Your task to perform on an android device: Go to Yahoo.com Image 0: 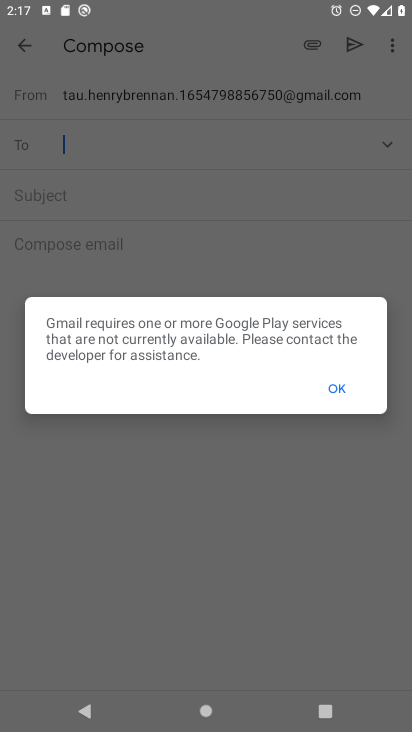
Step 0: press home button
Your task to perform on an android device: Go to Yahoo.com Image 1: 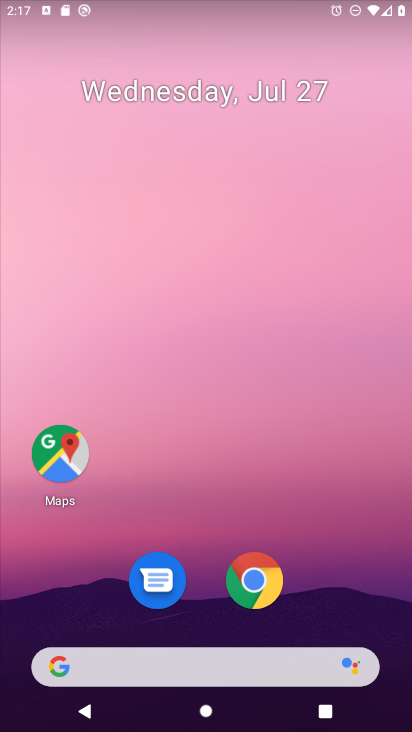
Step 1: click (269, 572)
Your task to perform on an android device: Go to Yahoo.com Image 2: 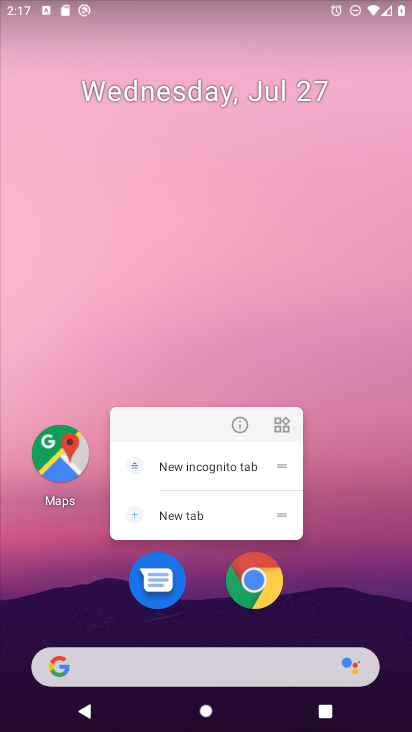
Step 2: click (251, 596)
Your task to perform on an android device: Go to Yahoo.com Image 3: 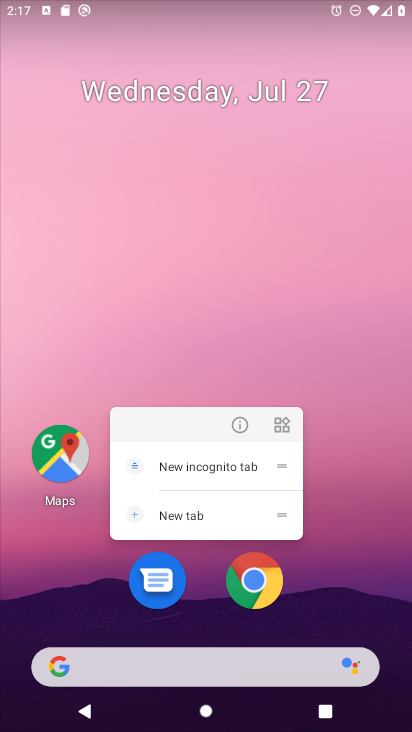
Step 3: click (251, 596)
Your task to perform on an android device: Go to Yahoo.com Image 4: 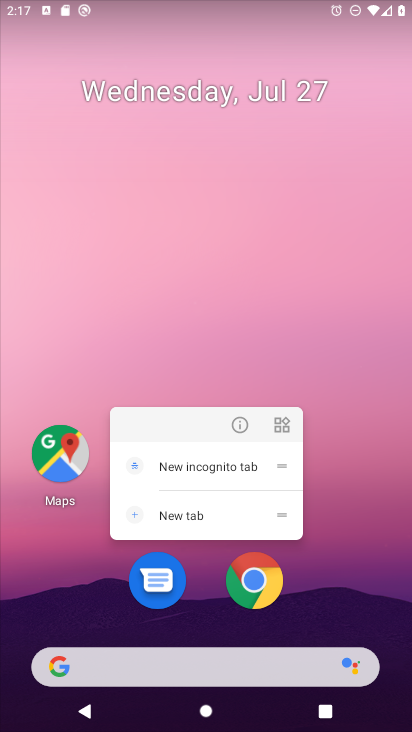
Step 4: click (252, 581)
Your task to perform on an android device: Go to Yahoo.com Image 5: 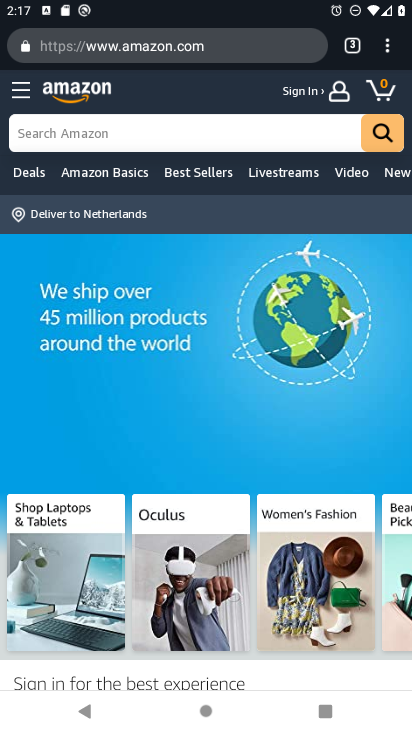
Step 5: click (354, 45)
Your task to perform on an android device: Go to Yahoo.com Image 6: 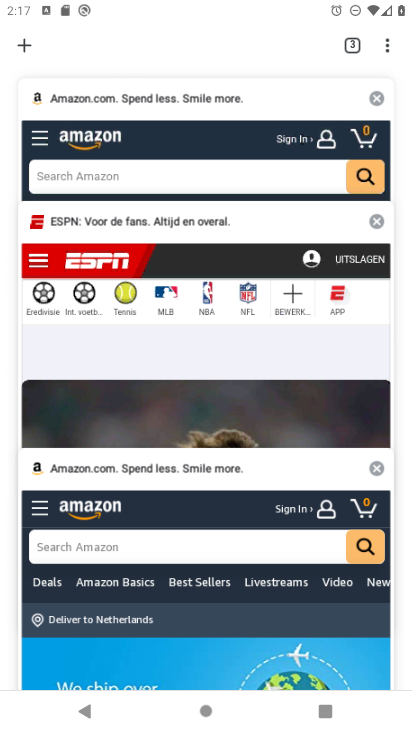
Step 6: click (11, 34)
Your task to perform on an android device: Go to Yahoo.com Image 7: 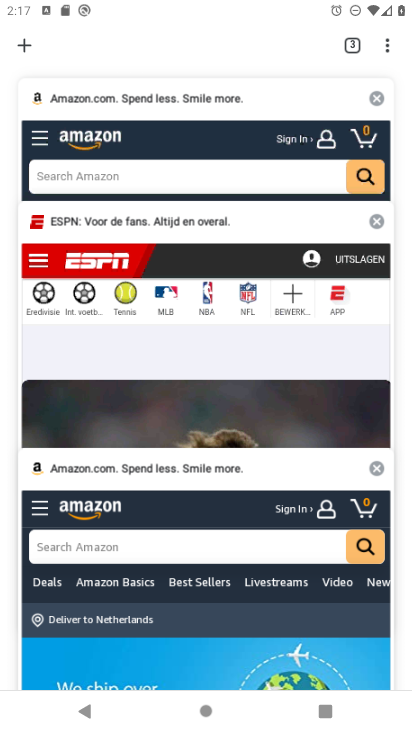
Step 7: click (34, 46)
Your task to perform on an android device: Go to Yahoo.com Image 8: 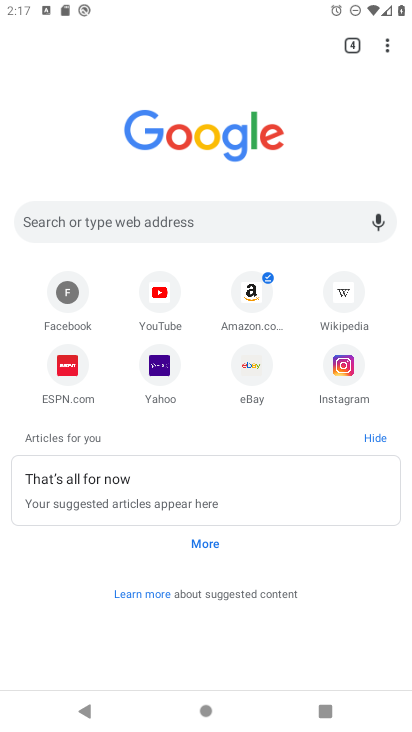
Step 8: click (142, 385)
Your task to perform on an android device: Go to Yahoo.com Image 9: 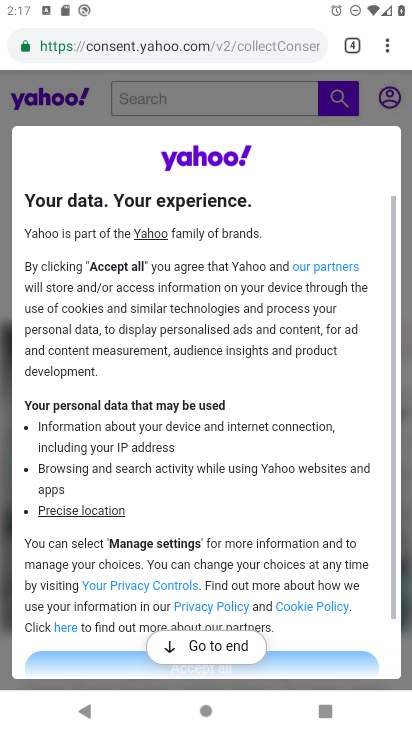
Step 9: drag from (226, 562) to (233, 272)
Your task to perform on an android device: Go to Yahoo.com Image 10: 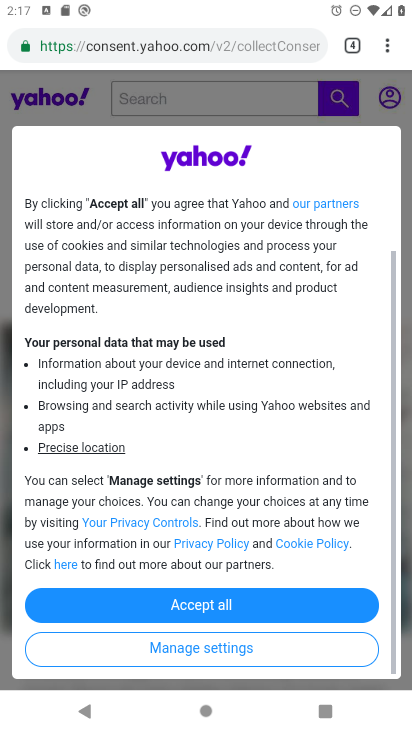
Step 10: click (206, 601)
Your task to perform on an android device: Go to Yahoo.com Image 11: 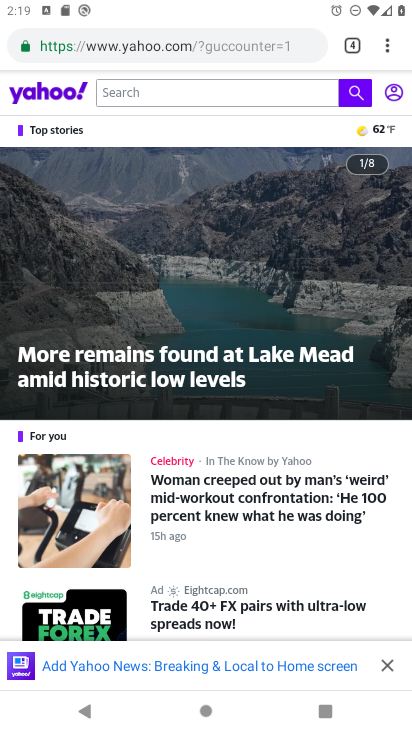
Step 11: task complete